Your task to perform on an android device: Open privacy settings Image 0: 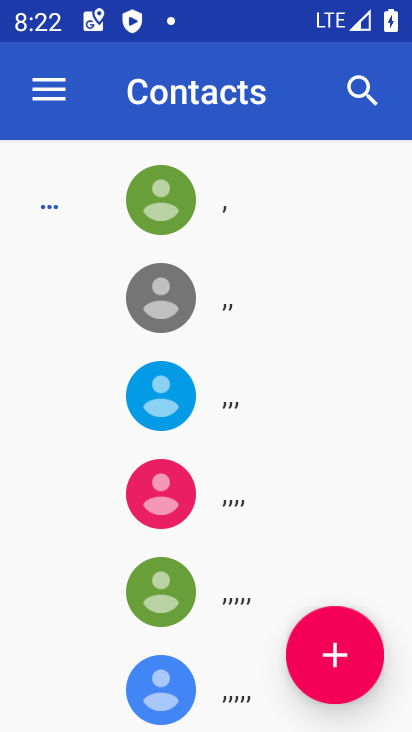
Step 0: press back button
Your task to perform on an android device: Open privacy settings Image 1: 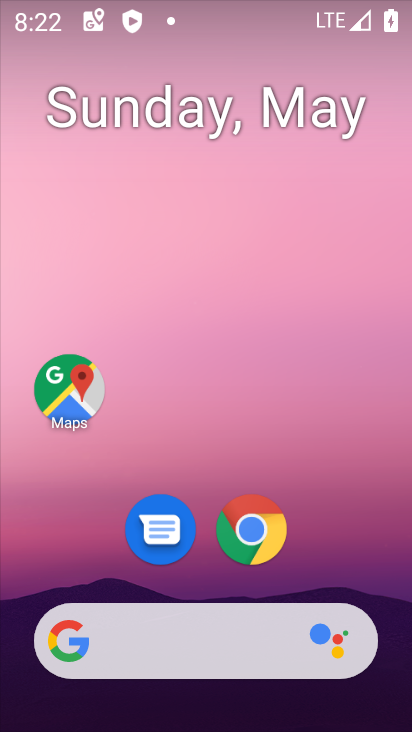
Step 1: drag from (223, 580) to (248, 75)
Your task to perform on an android device: Open privacy settings Image 2: 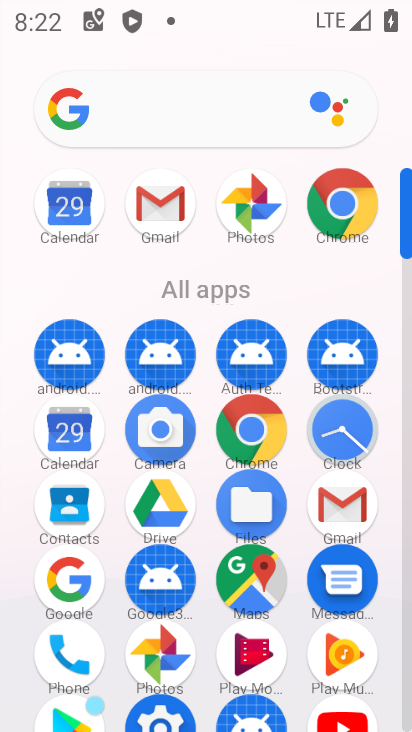
Step 2: click (163, 705)
Your task to perform on an android device: Open privacy settings Image 3: 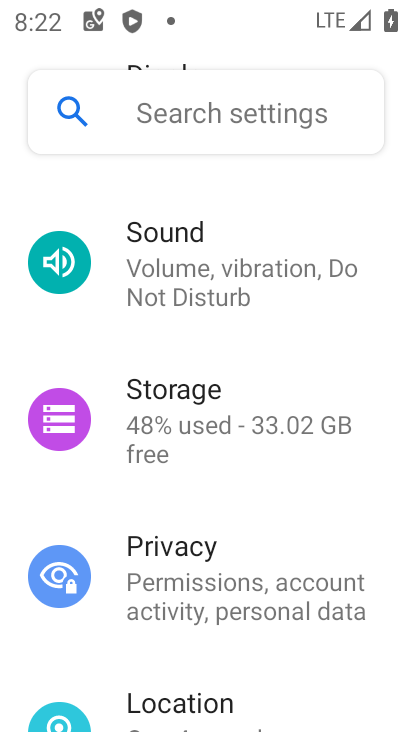
Step 3: click (156, 581)
Your task to perform on an android device: Open privacy settings Image 4: 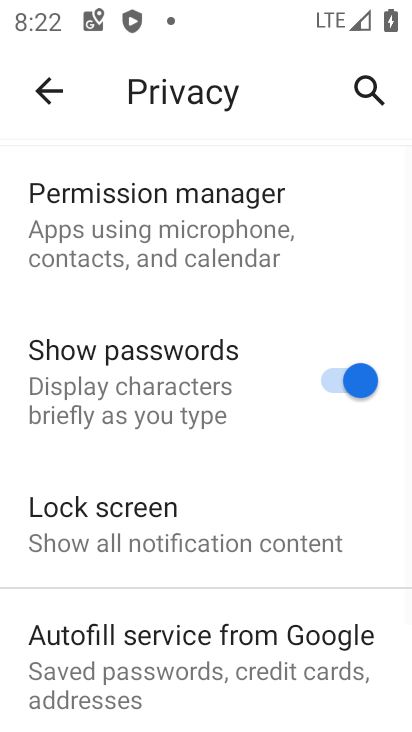
Step 4: task complete